Your task to perform on an android device: turn off airplane mode Image 0: 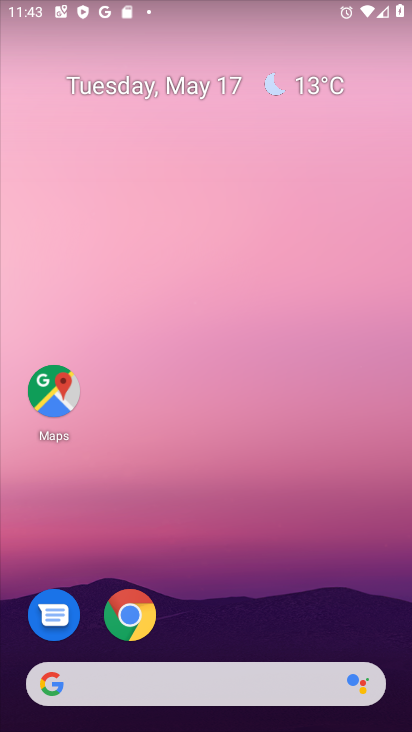
Step 0: drag from (265, 5) to (317, 536)
Your task to perform on an android device: turn off airplane mode Image 1: 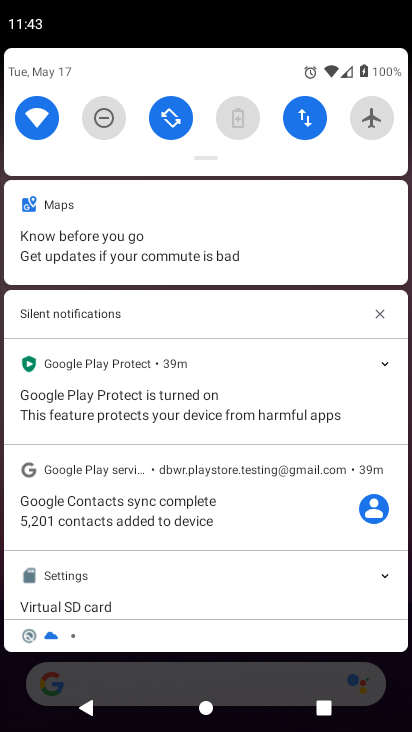
Step 1: task complete